Your task to perform on an android device: open app "Paramount+ | Peak Streaming" (install if not already installed), go to login, and select forgot password Image 0: 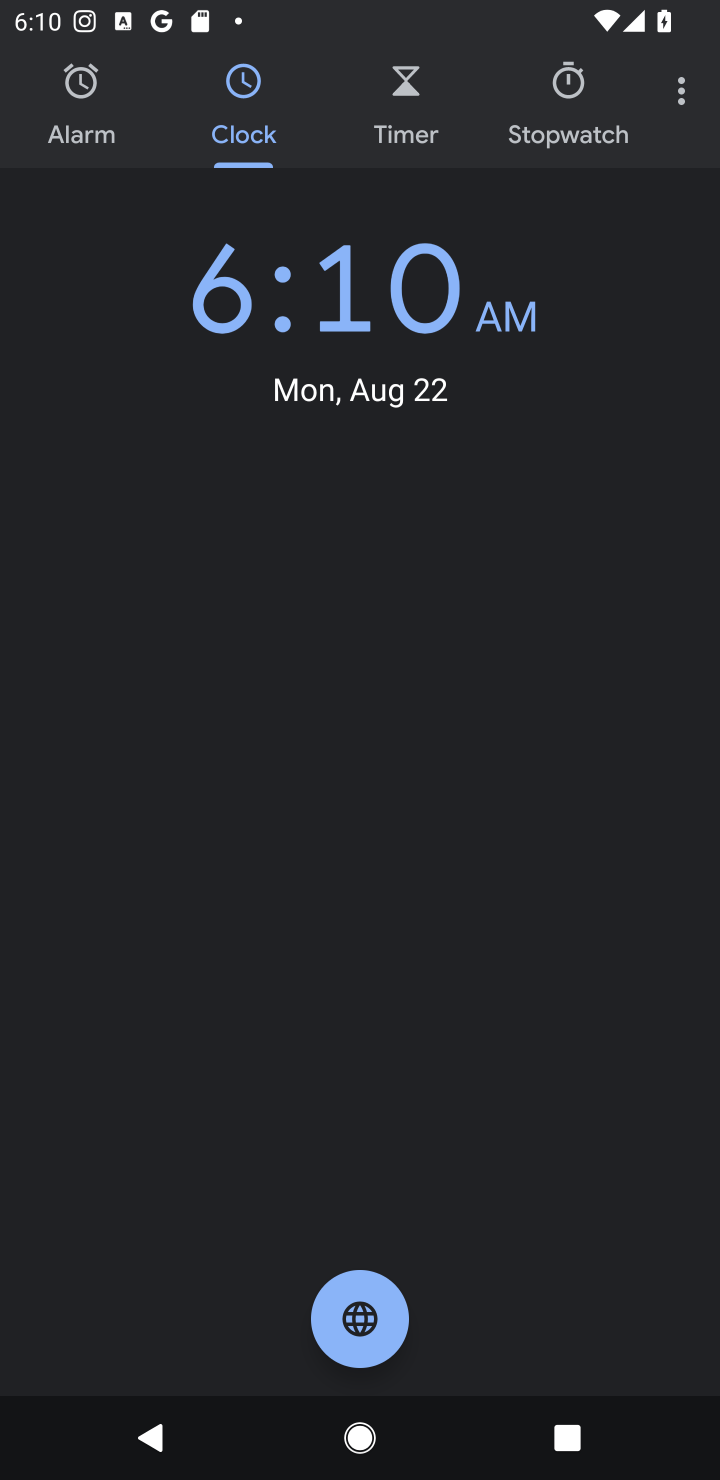
Step 0: press home button
Your task to perform on an android device: open app "Paramount+ | Peak Streaming" (install if not already installed), go to login, and select forgot password Image 1: 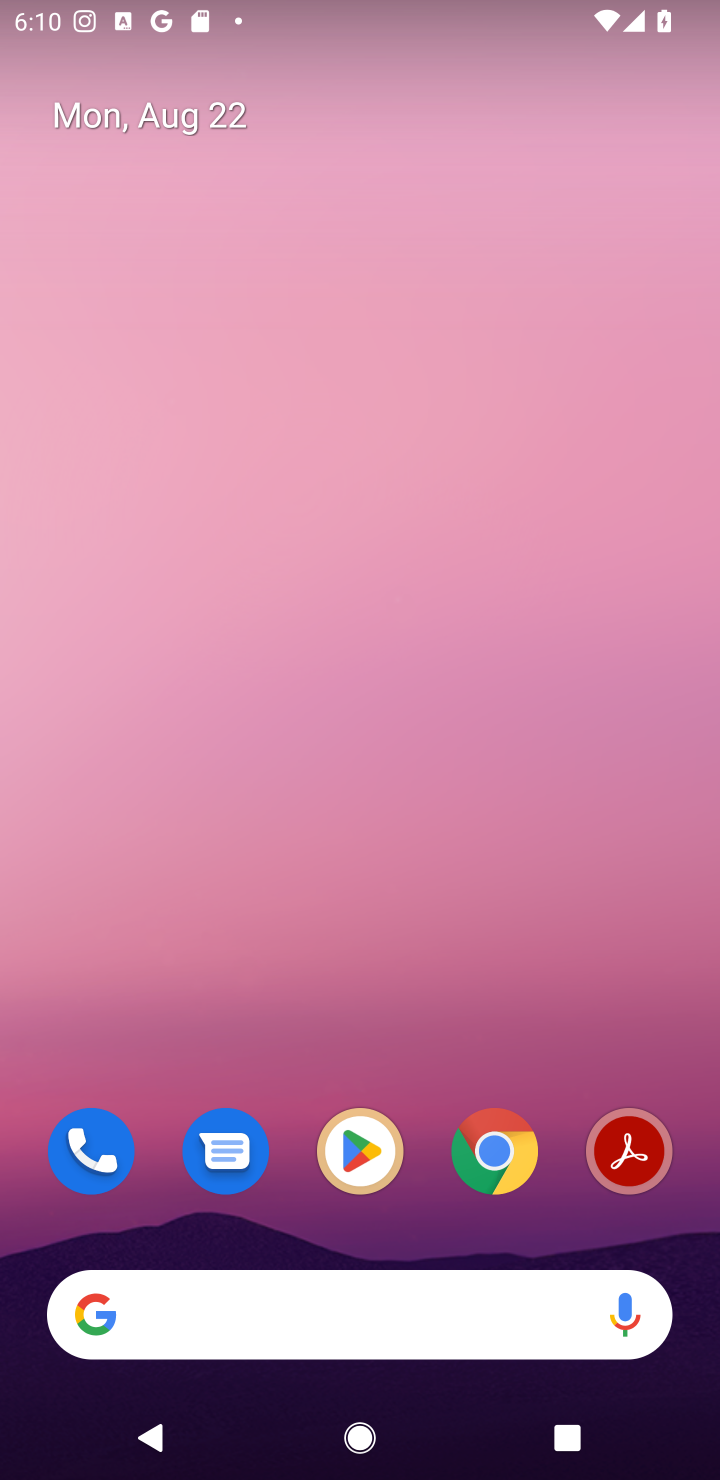
Step 1: click (361, 1159)
Your task to perform on an android device: open app "Paramount+ | Peak Streaming" (install if not already installed), go to login, and select forgot password Image 2: 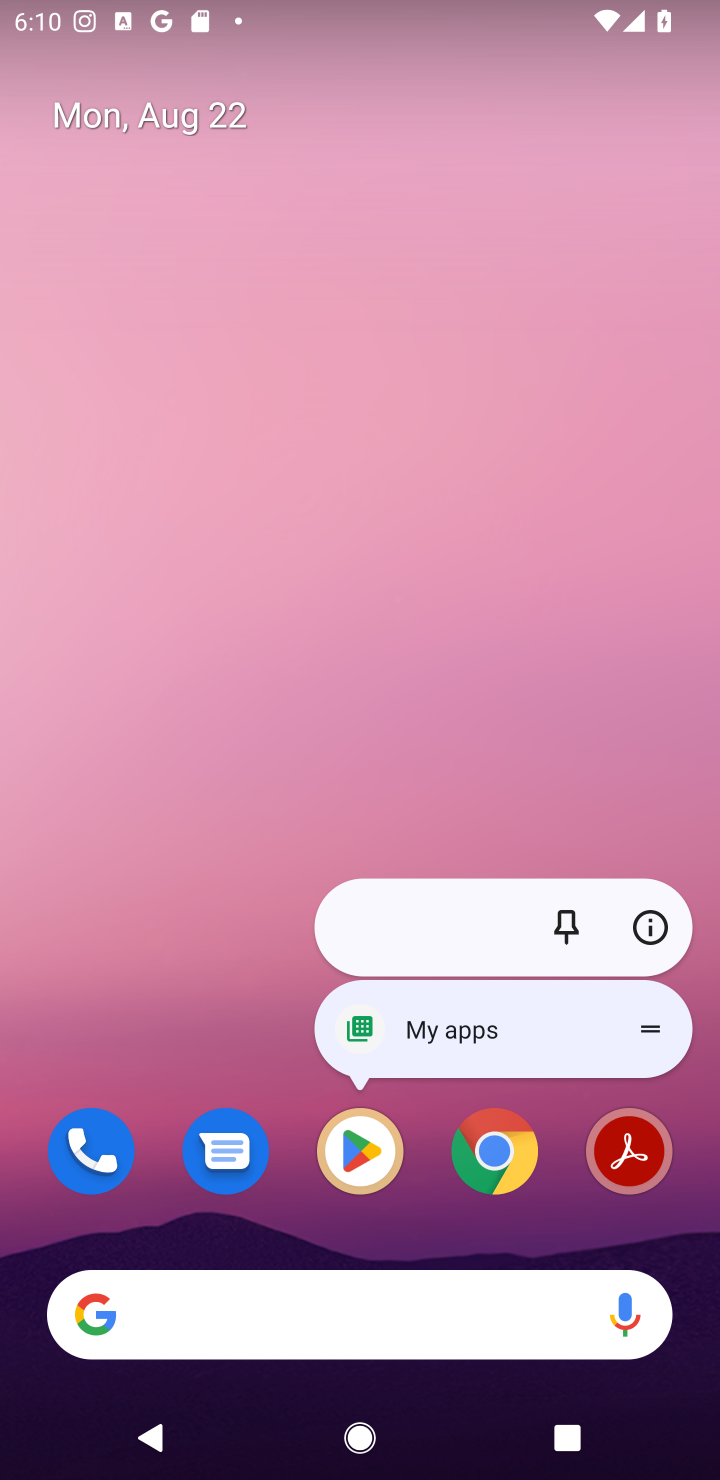
Step 2: click (352, 1148)
Your task to perform on an android device: open app "Paramount+ | Peak Streaming" (install if not already installed), go to login, and select forgot password Image 3: 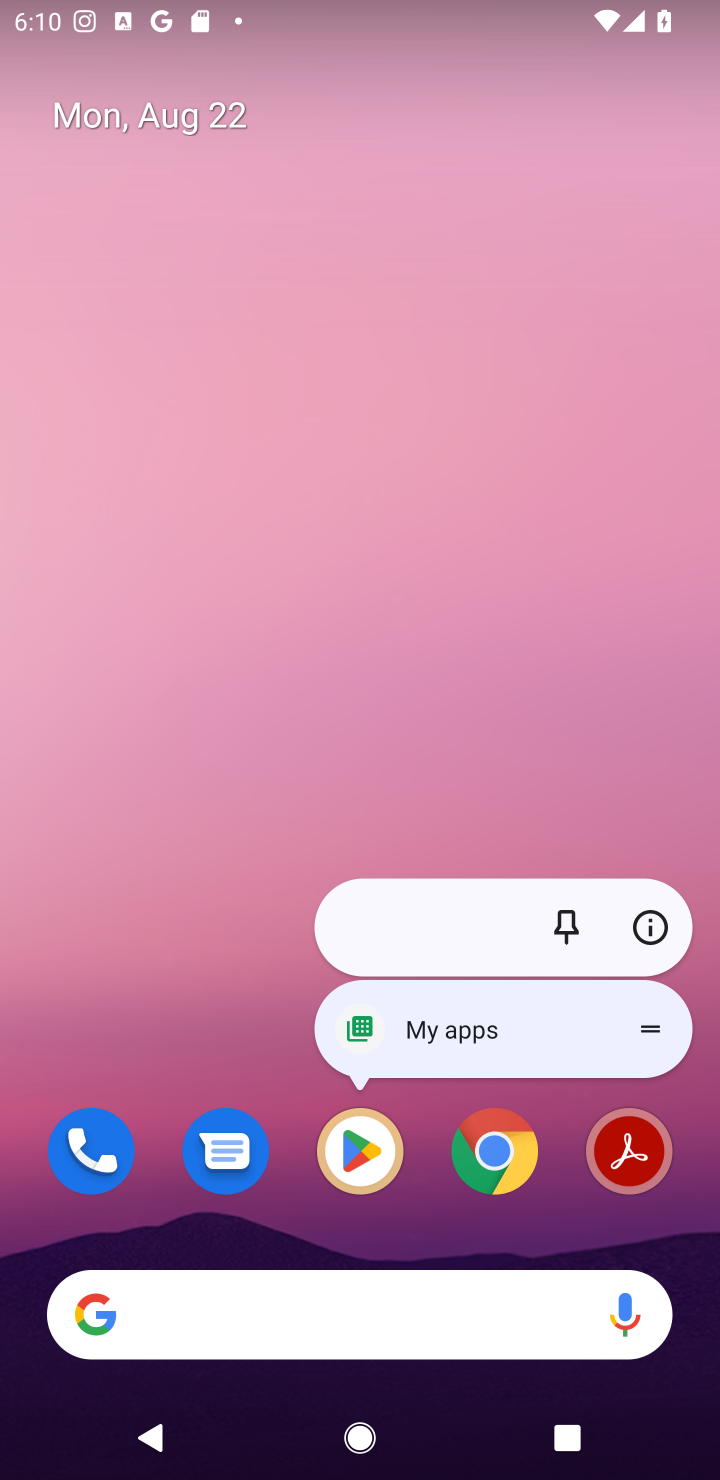
Step 3: click (352, 1153)
Your task to perform on an android device: open app "Paramount+ | Peak Streaming" (install if not already installed), go to login, and select forgot password Image 4: 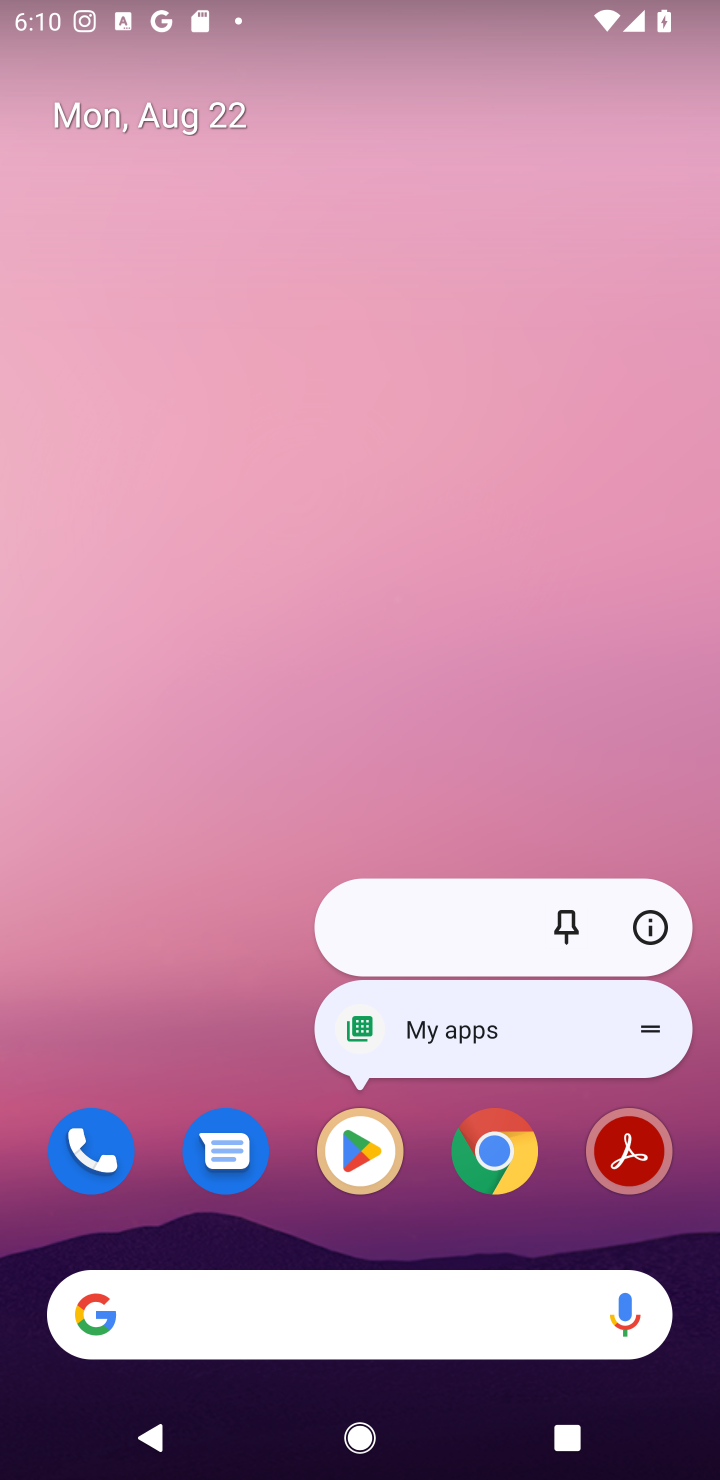
Step 4: click (350, 1166)
Your task to perform on an android device: open app "Paramount+ | Peak Streaming" (install if not already installed), go to login, and select forgot password Image 5: 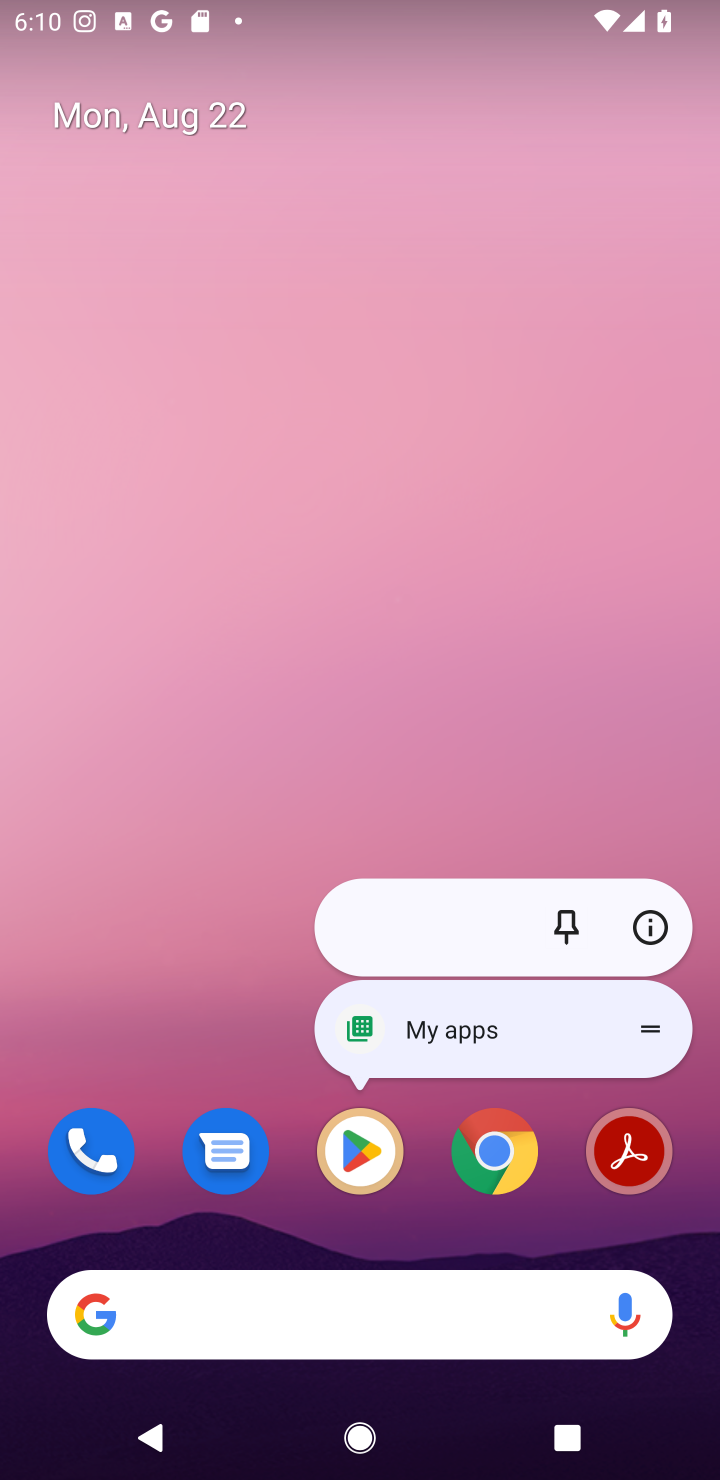
Step 5: click (354, 1152)
Your task to perform on an android device: open app "Paramount+ | Peak Streaming" (install if not already installed), go to login, and select forgot password Image 6: 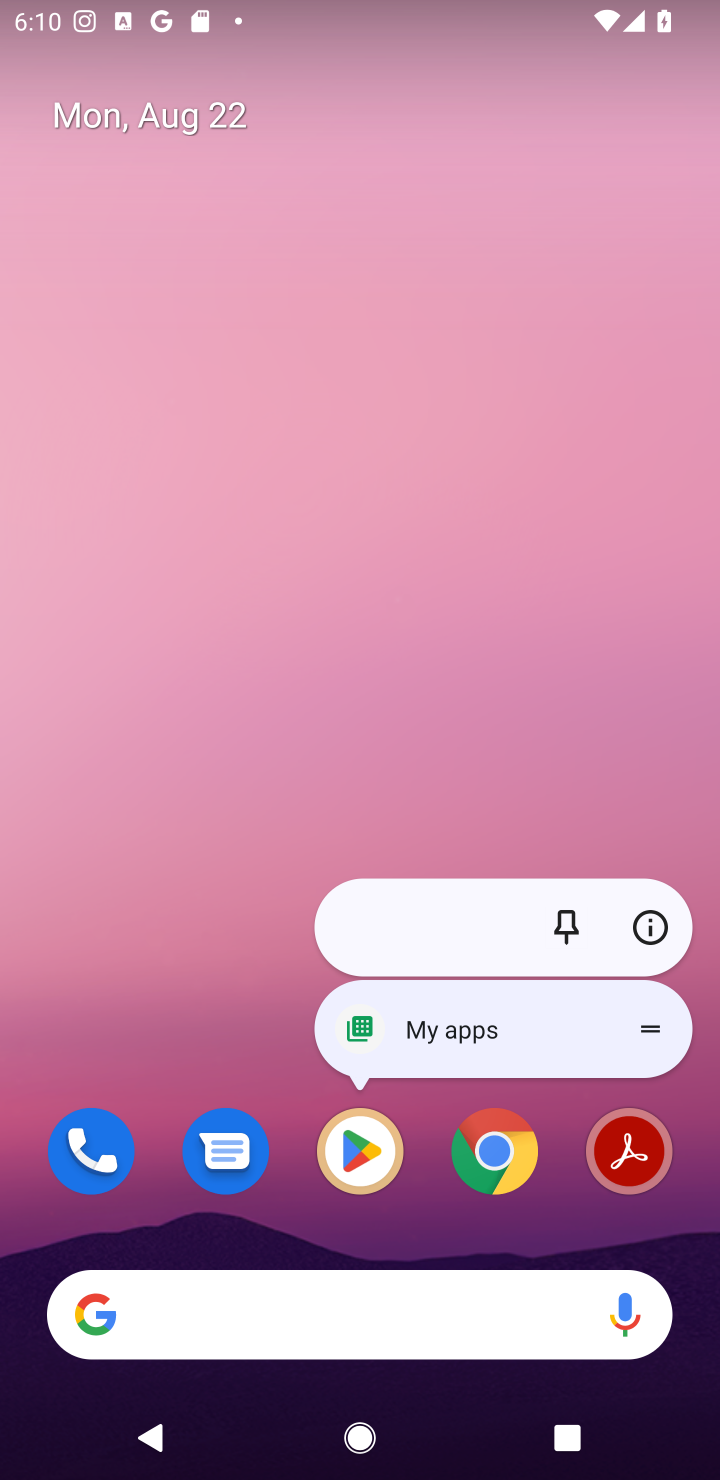
Step 6: click (354, 1162)
Your task to perform on an android device: open app "Paramount+ | Peak Streaming" (install if not already installed), go to login, and select forgot password Image 7: 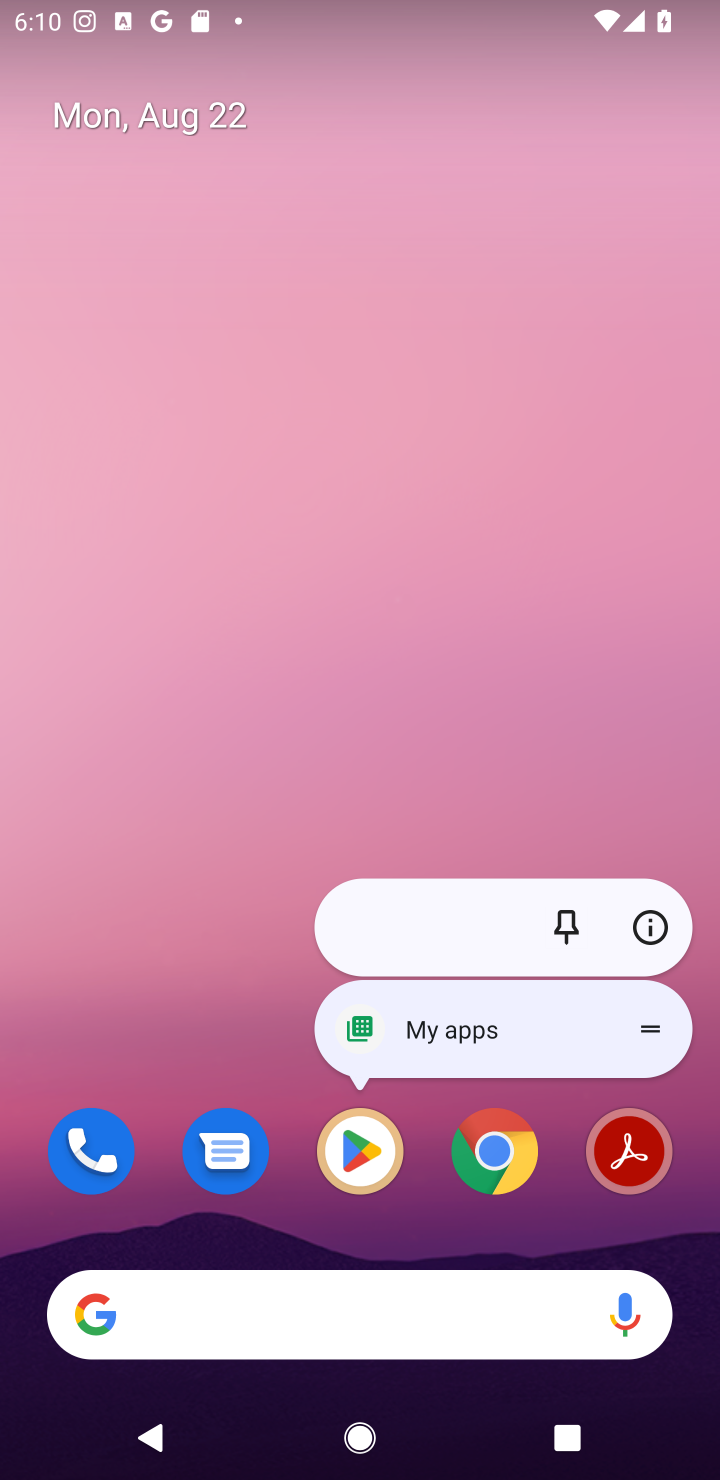
Step 7: click (372, 1145)
Your task to perform on an android device: open app "Paramount+ | Peak Streaming" (install if not already installed), go to login, and select forgot password Image 8: 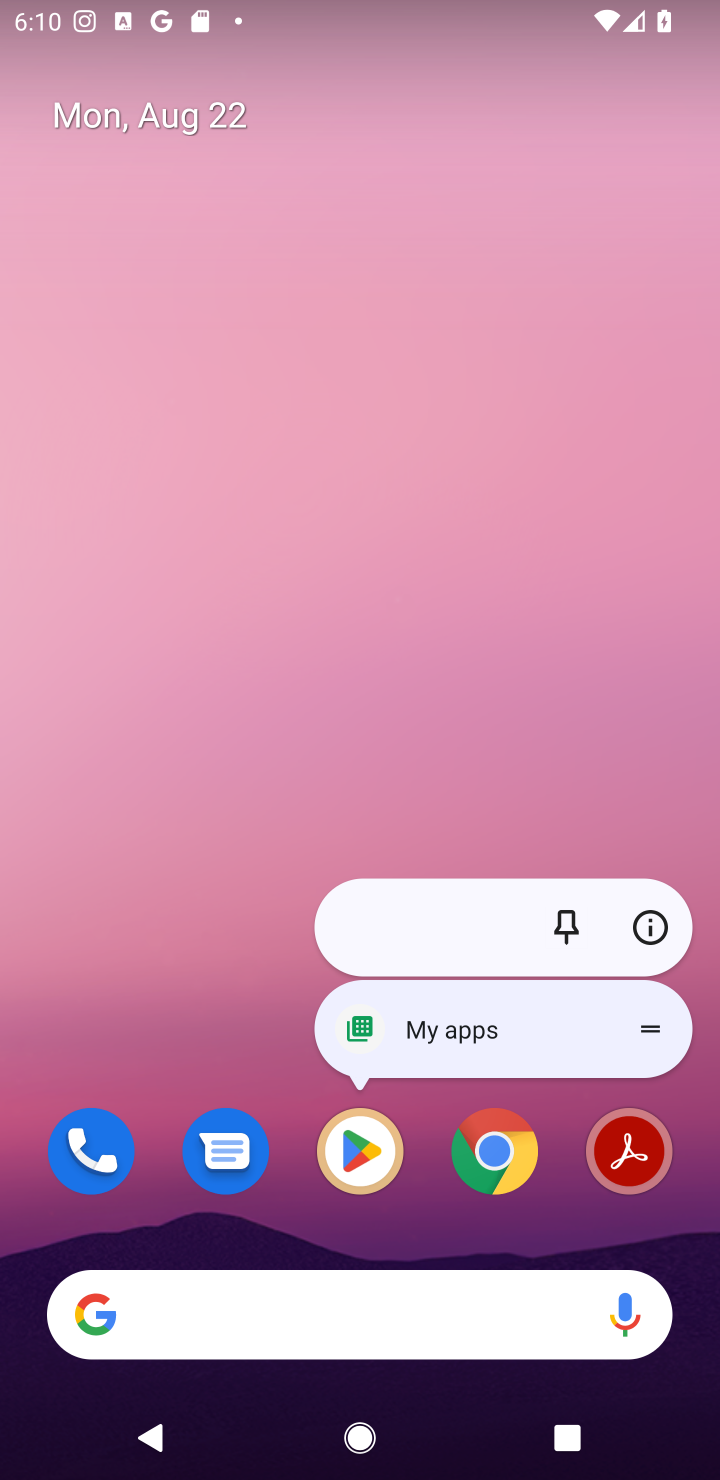
Step 8: click (372, 1145)
Your task to perform on an android device: open app "Paramount+ | Peak Streaming" (install if not already installed), go to login, and select forgot password Image 9: 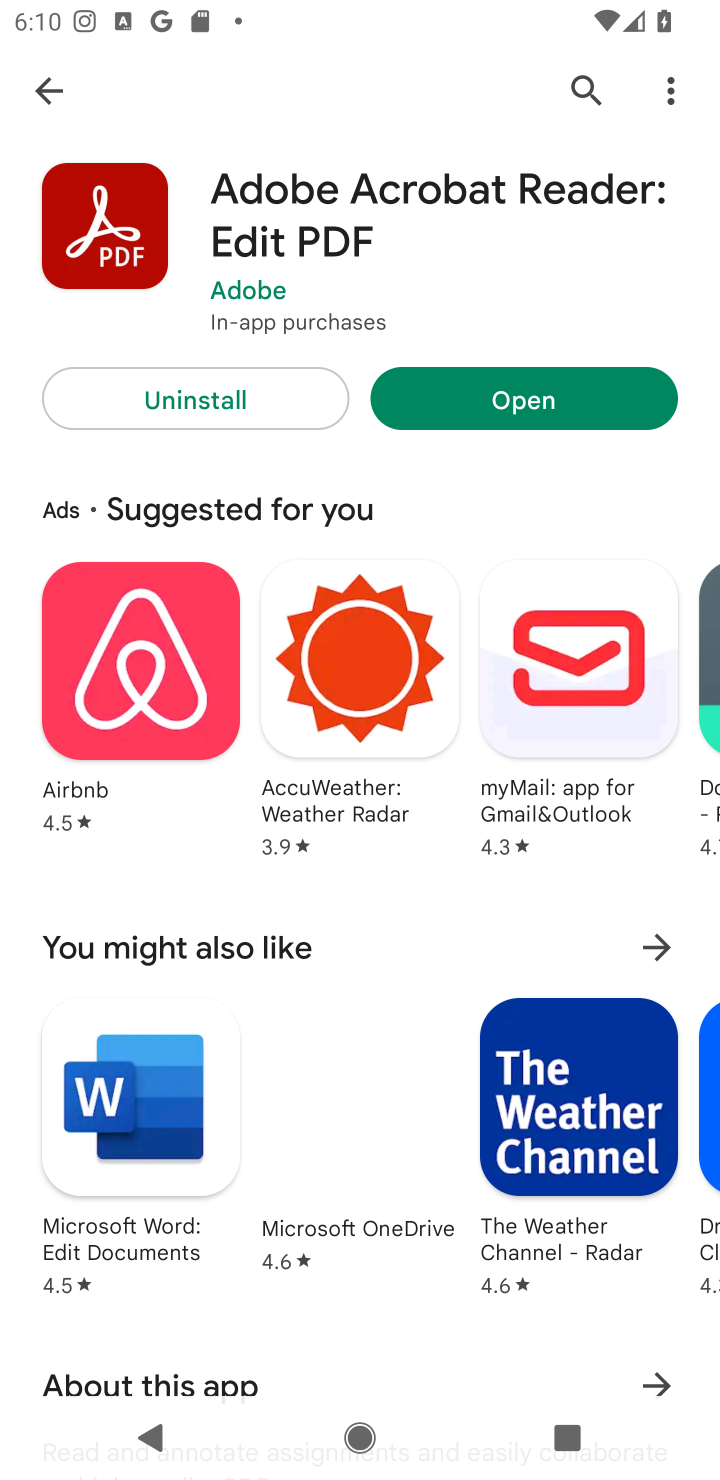
Step 9: click (583, 78)
Your task to perform on an android device: open app "Paramount+ | Peak Streaming" (install if not already installed), go to login, and select forgot password Image 10: 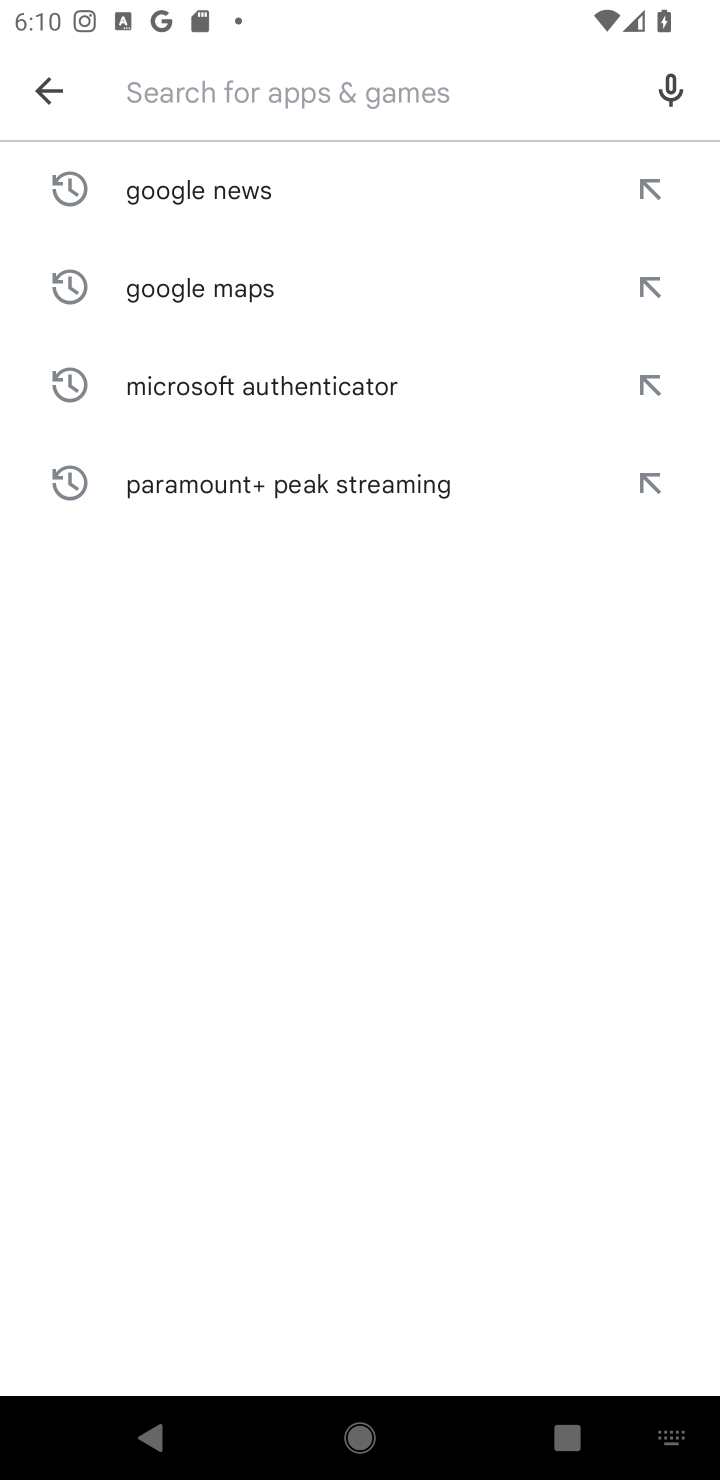
Step 10: type "Paramount+ | Peak Streaming"
Your task to perform on an android device: open app "Paramount+ | Peak Streaming" (install if not already installed), go to login, and select forgot password Image 11: 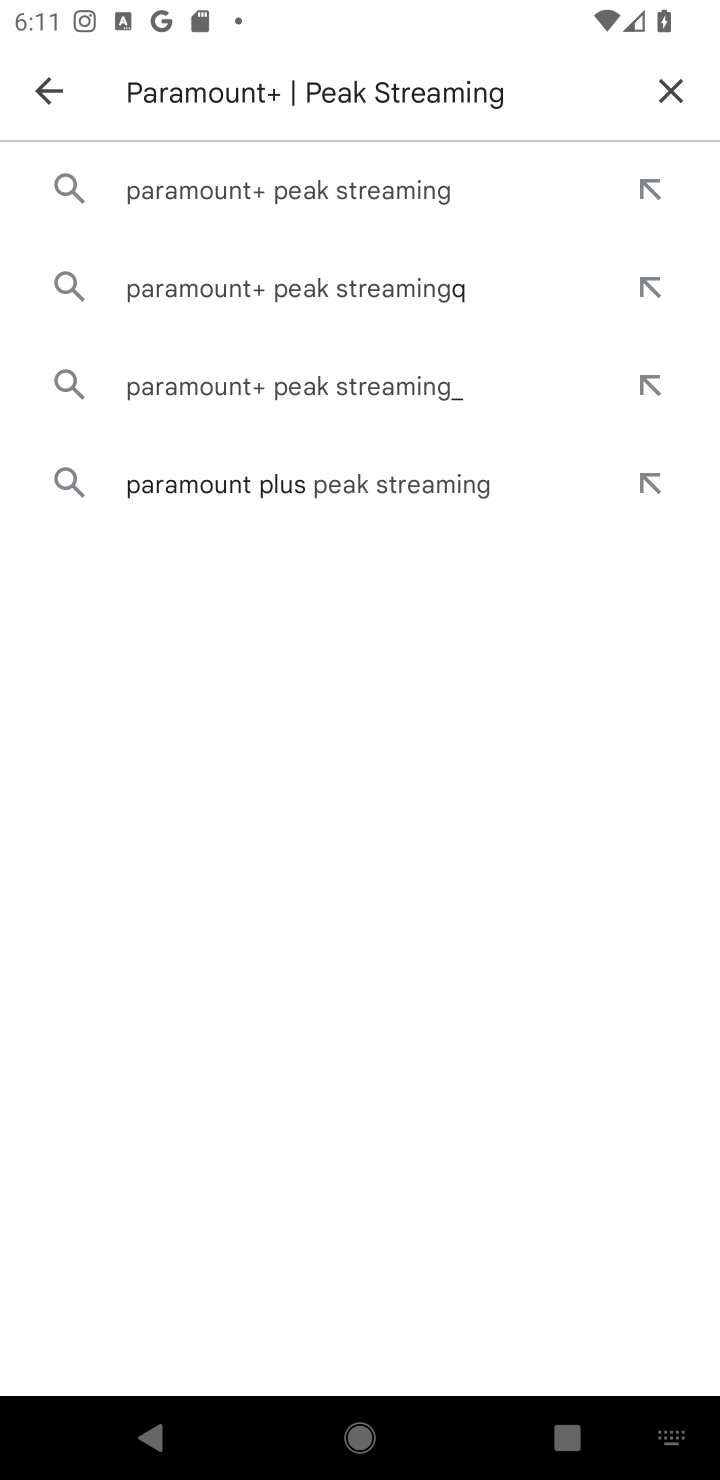
Step 11: click (387, 181)
Your task to perform on an android device: open app "Paramount+ | Peak Streaming" (install if not already installed), go to login, and select forgot password Image 12: 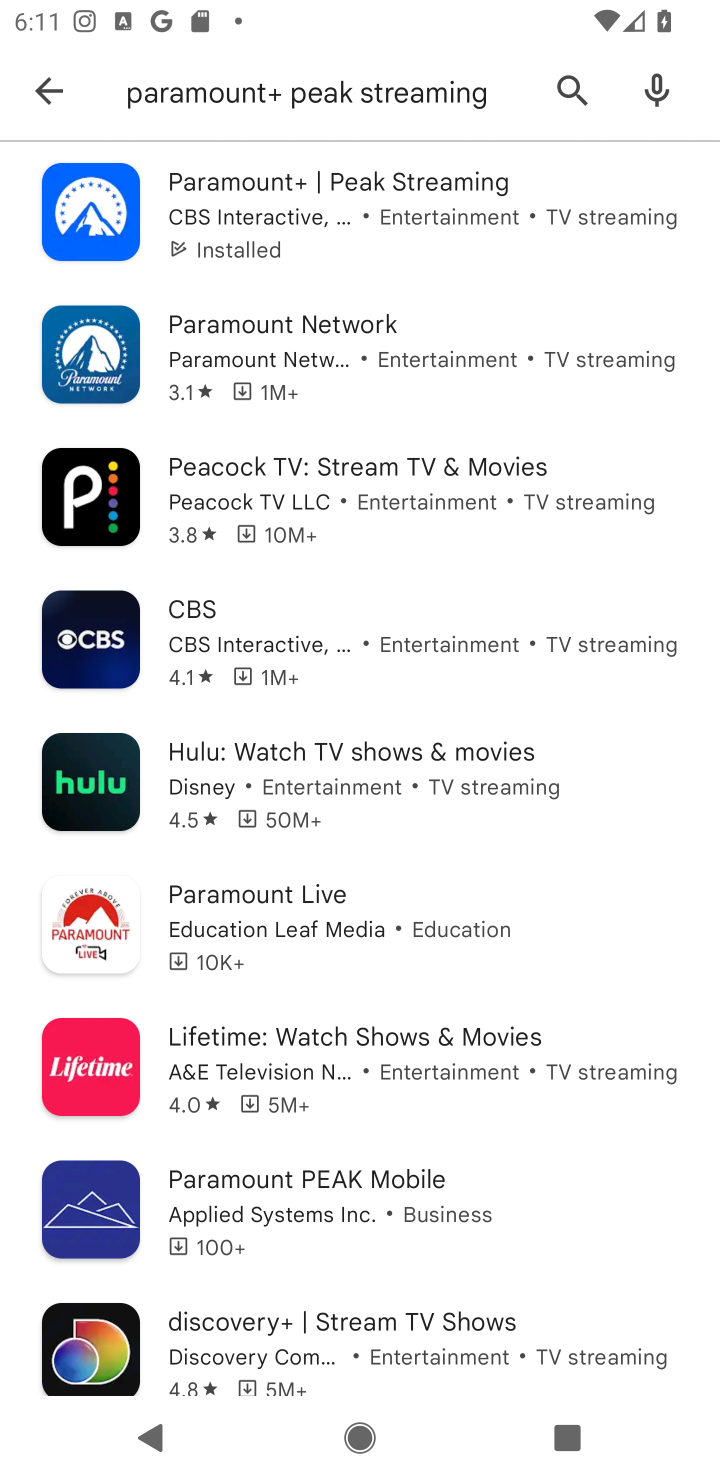
Step 12: click (382, 206)
Your task to perform on an android device: open app "Paramount+ | Peak Streaming" (install if not already installed), go to login, and select forgot password Image 13: 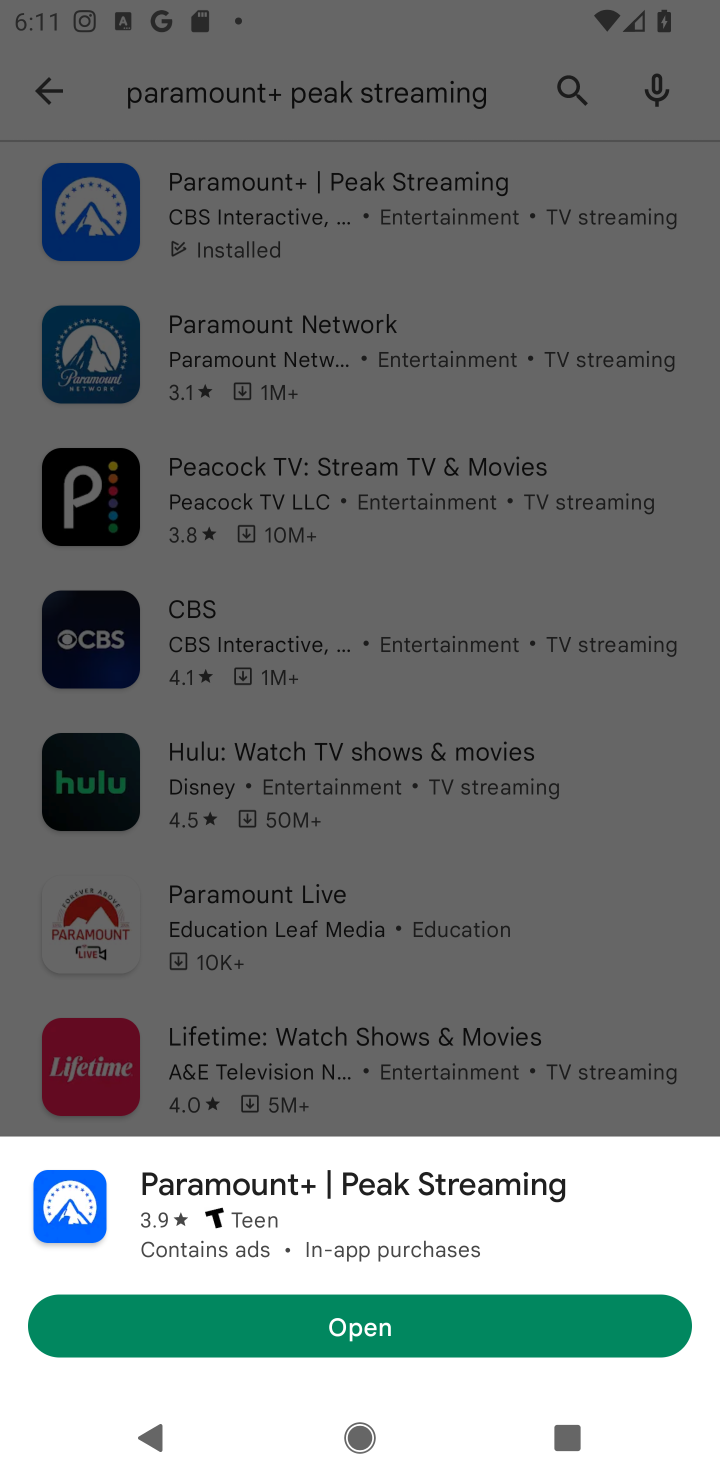
Step 13: click (370, 1327)
Your task to perform on an android device: open app "Paramount+ | Peak Streaming" (install if not already installed), go to login, and select forgot password Image 14: 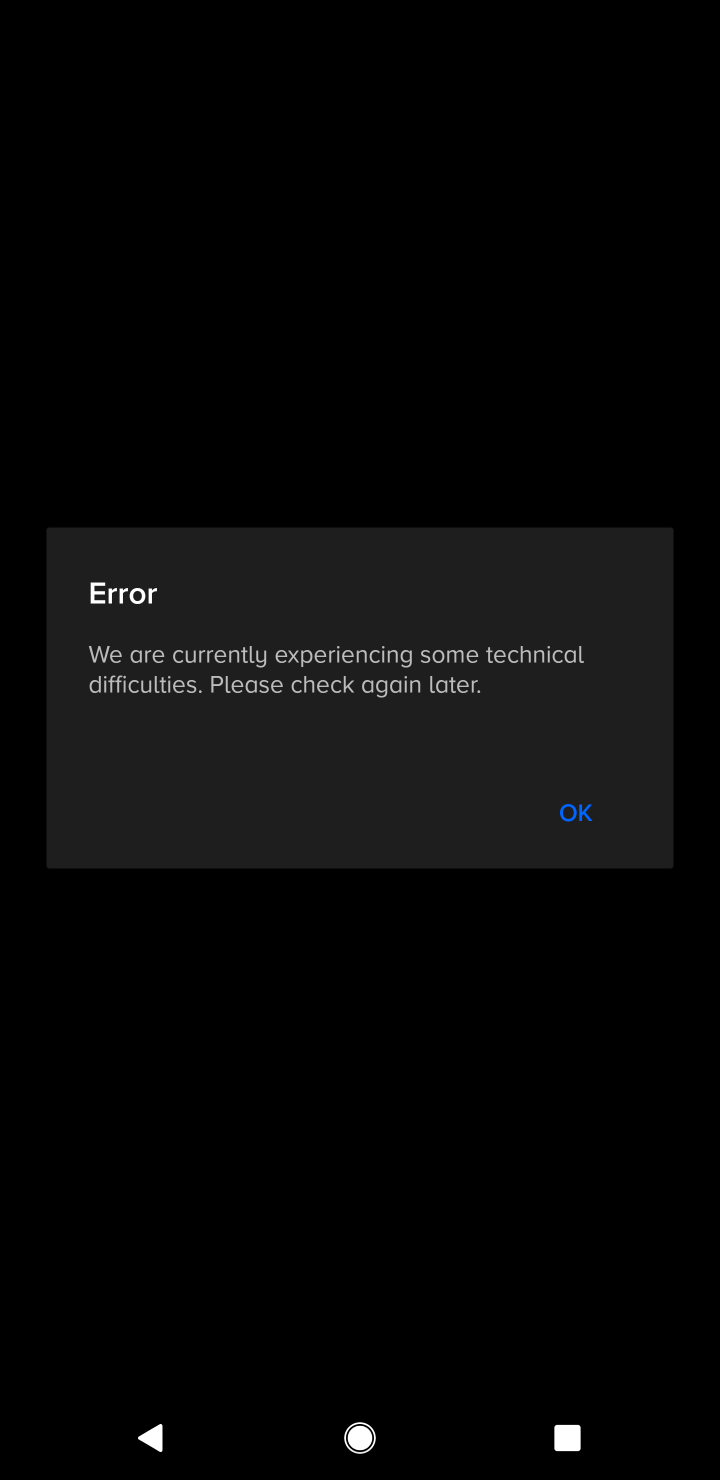
Step 14: task complete